Your task to perform on an android device: Open sound settings Image 0: 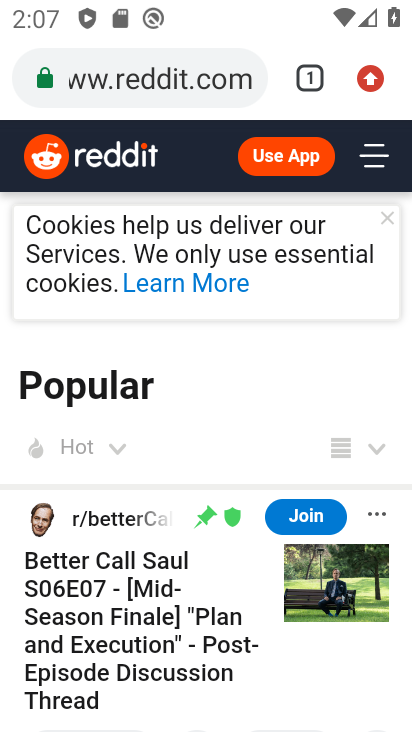
Step 0: press home button
Your task to perform on an android device: Open sound settings Image 1: 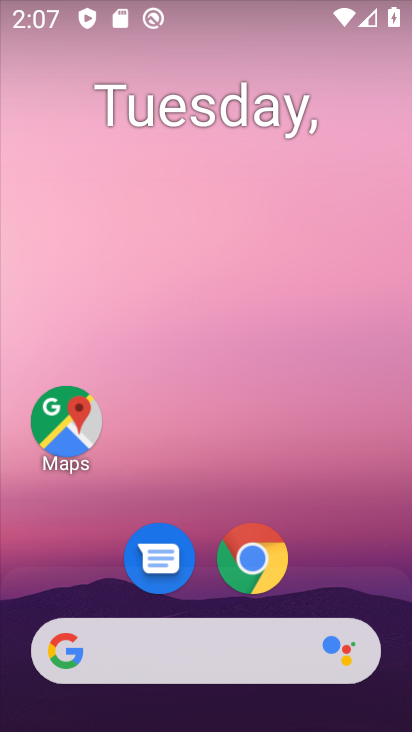
Step 1: drag from (94, 619) to (187, 112)
Your task to perform on an android device: Open sound settings Image 2: 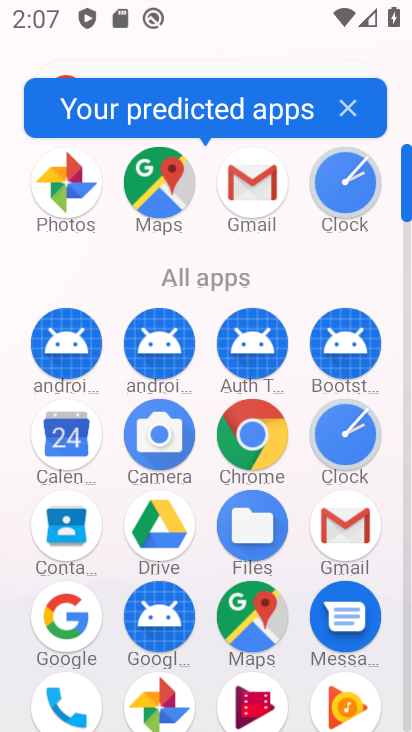
Step 2: drag from (180, 642) to (242, 382)
Your task to perform on an android device: Open sound settings Image 3: 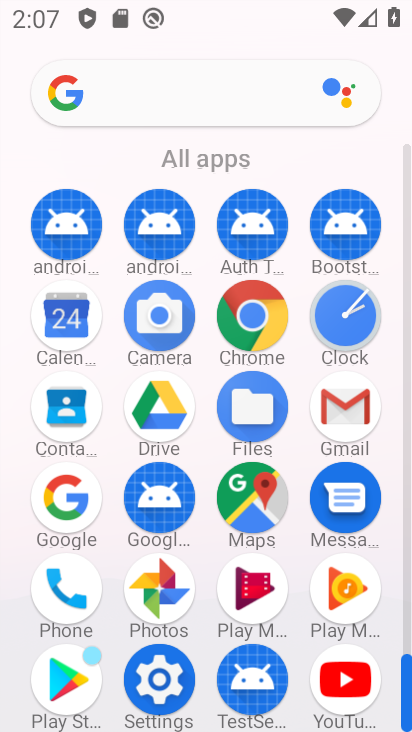
Step 3: click (169, 693)
Your task to perform on an android device: Open sound settings Image 4: 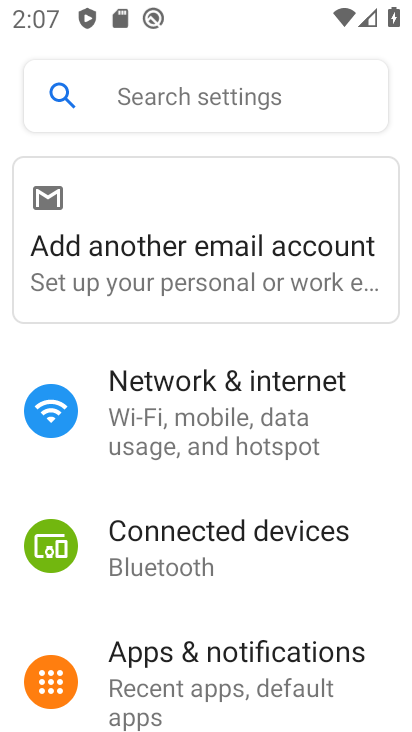
Step 4: drag from (215, 678) to (407, 207)
Your task to perform on an android device: Open sound settings Image 5: 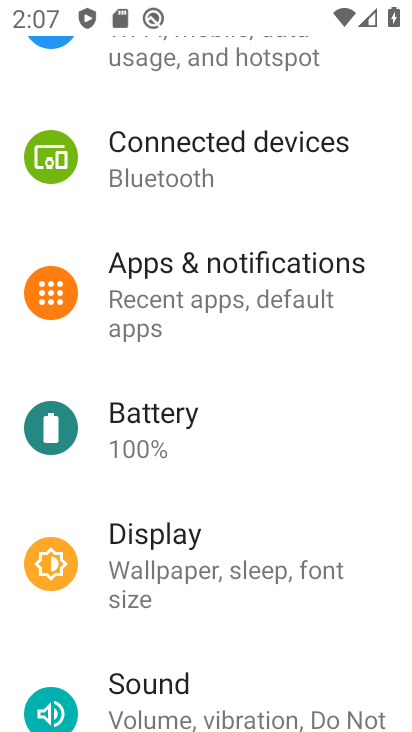
Step 5: click (175, 688)
Your task to perform on an android device: Open sound settings Image 6: 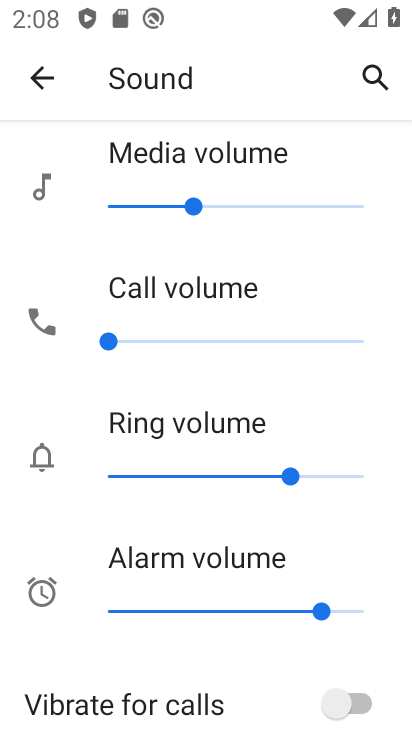
Step 6: task complete